Your task to perform on an android device: delete the emails in spam in the gmail app Image 0: 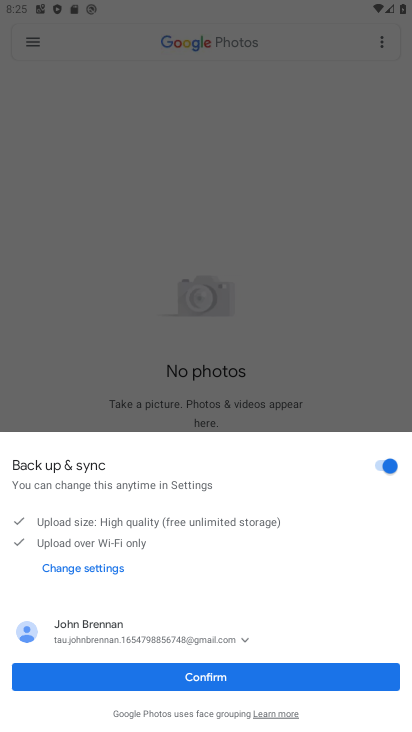
Step 0: press home button
Your task to perform on an android device: delete the emails in spam in the gmail app Image 1: 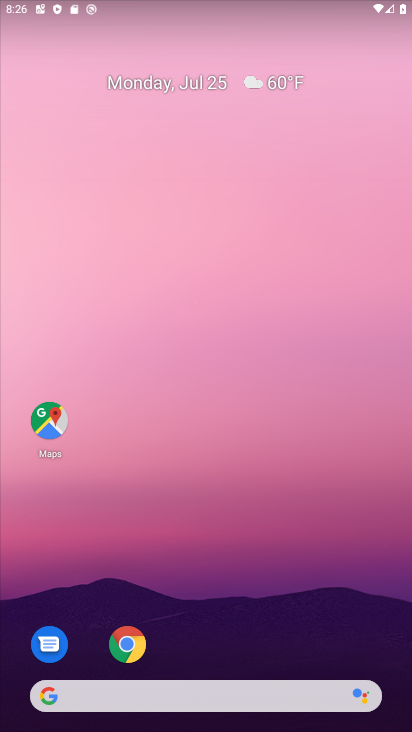
Step 1: drag from (306, 596) to (286, 249)
Your task to perform on an android device: delete the emails in spam in the gmail app Image 2: 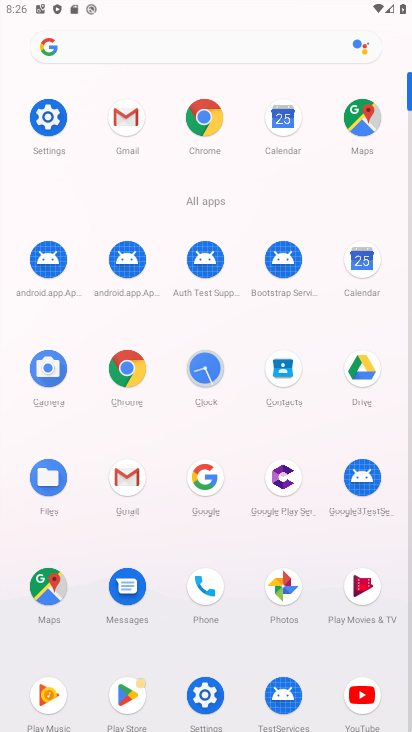
Step 2: click (118, 476)
Your task to perform on an android device: delete the emails in spam in the gmail app Image 3: 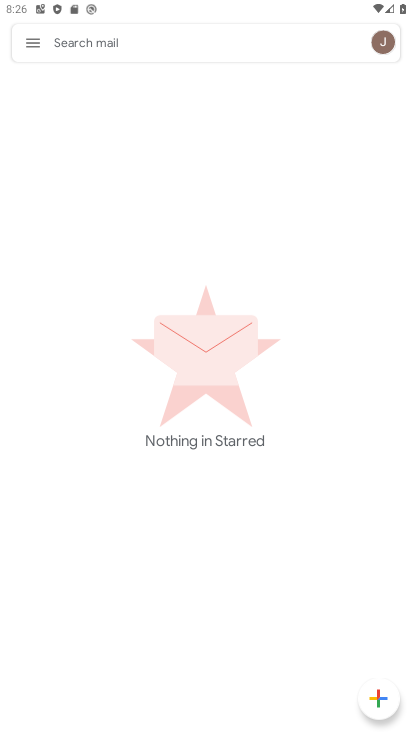
Step 3: click (44, 57)
Your task to perform on an android device: delete the emails in spam in the gmail app Image 4: 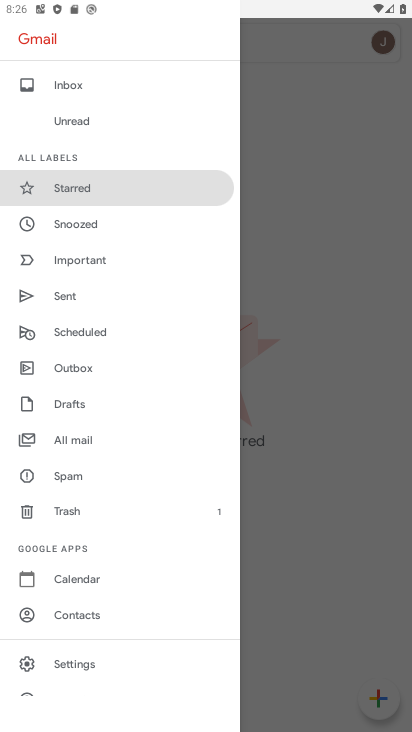
Step 4: click (68, 478)
Your task to perform on an android device: delete the emails in spam in the gmail app Image 5: 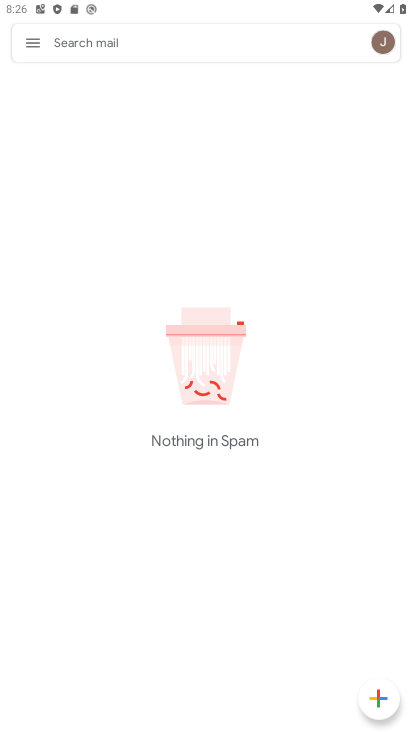
Step 5: task complete